Your task to perform on an android device: Go to Wikipedia Image 0: 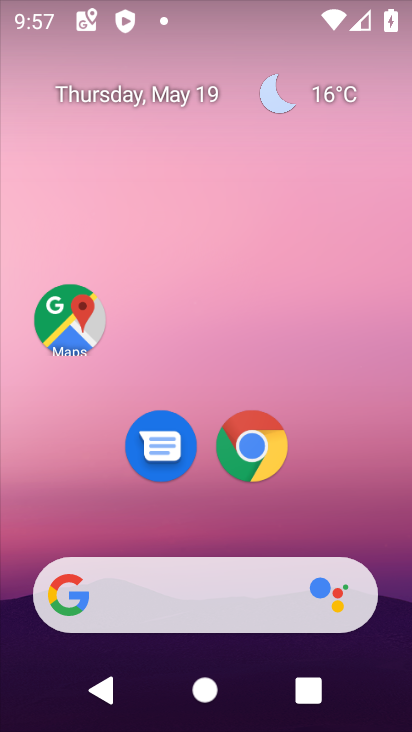
Step 0: click (276, 425)
Your task to perform on an android device: Go to Wikipedia Image 1: 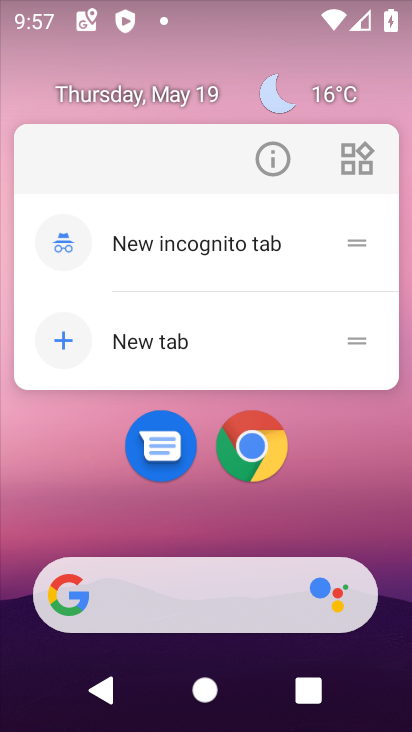
Step 1: click (248, 435)
Your task to perform on an android device: Go to Wikipedia Image 2: 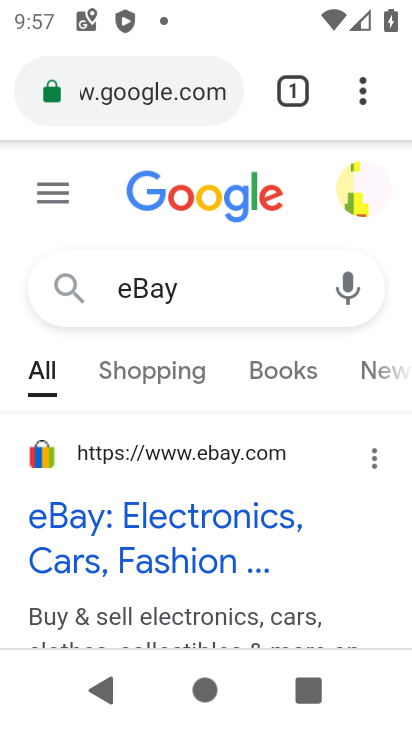
Step 2: click (185, 93)
Your task to perform on an android device: Go to Wikipedia Image 3: 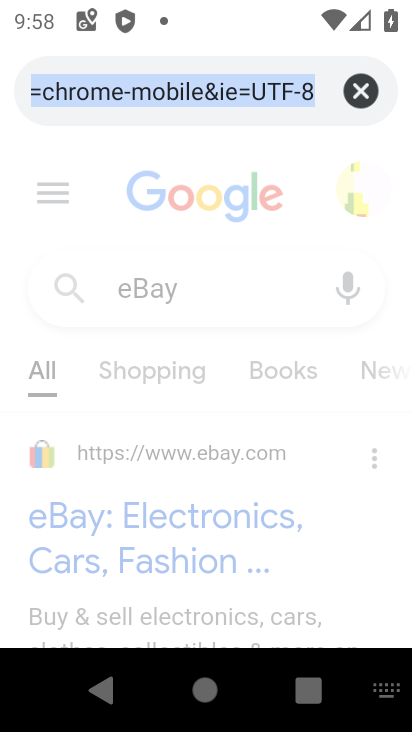
Step 3: type "wikipedia"
Your task to perform on an android device: Go to Wikipedia Image 4: 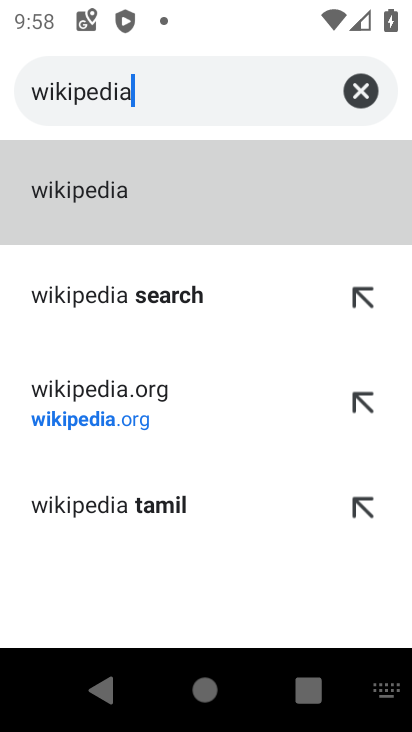
Step 4: click (174, 91)
Your task to perform on an android device: Go to Wikipedia Image 5: 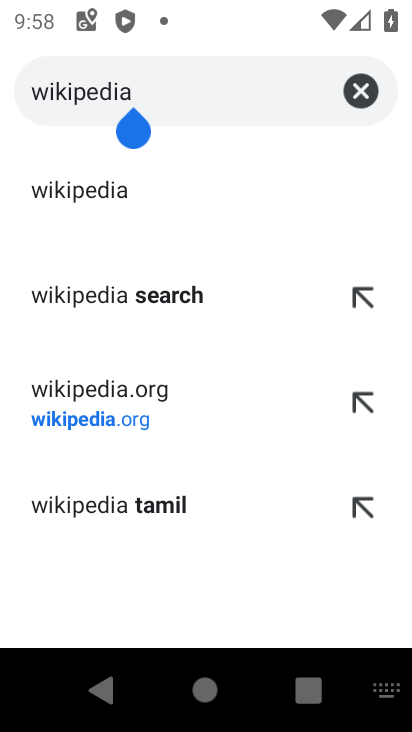
Step 5: click (191, 225)
Your task to perform on an android device: Go to Wikipedia Image 6: 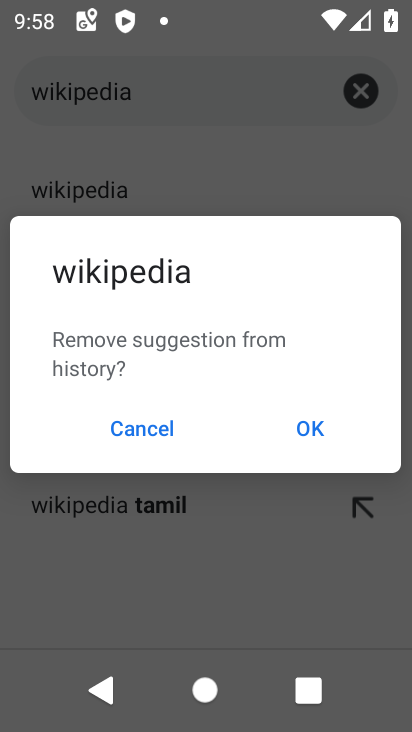
Step 6: click (148, 201)
Your task to perform on an android device: Go to Wikipedia Image 7: 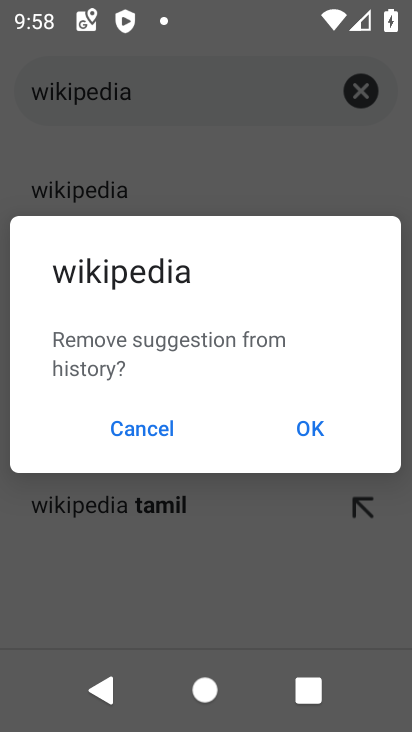
Step 7: click (144, 424)
Your task to perform on an android device: Go to Wikipedia Image 8: 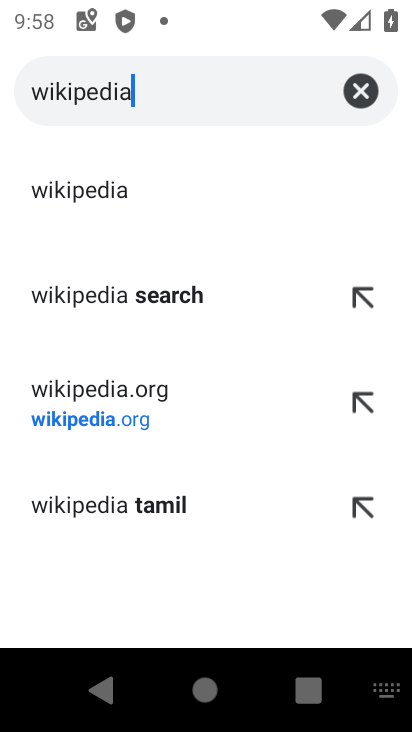
Step 8: click (111, 387)
Your task to perform on an android device: Go to Wikipedia Image 9: 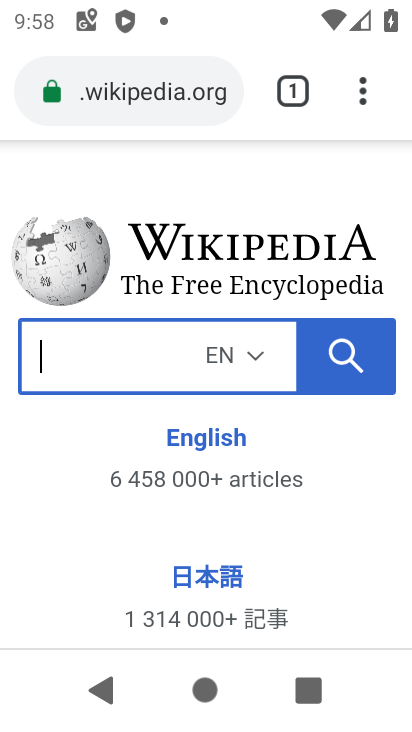
Step 9: task complete